Your task to perform on an android device: Search for seafood restaurants on Google Maps Image 0: 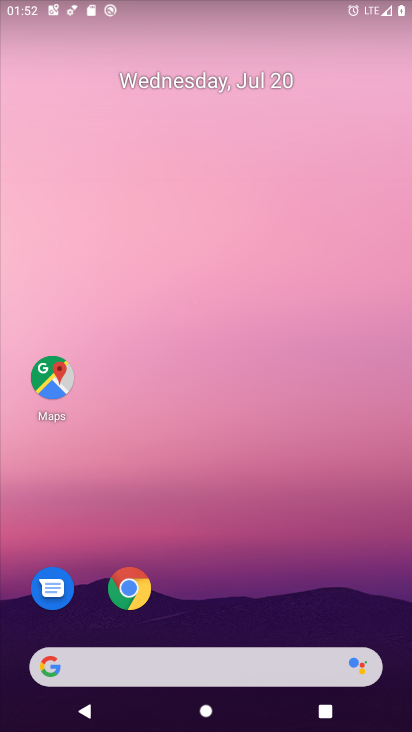
Step 0: drag from (286, 605) to (307, 135)
Your task to perform on an android device: Search for seafood restaurants on Google Maps Image 1: 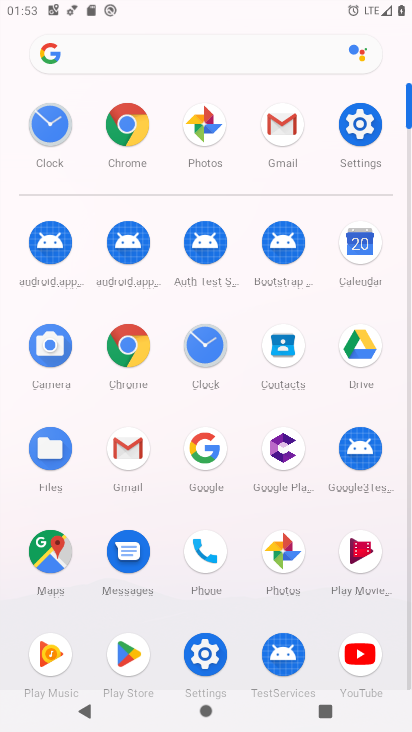
Step 1: click (50, 543)
Your task to perform on an android device: Search for seafood restaurants on Google Maps Image 2: 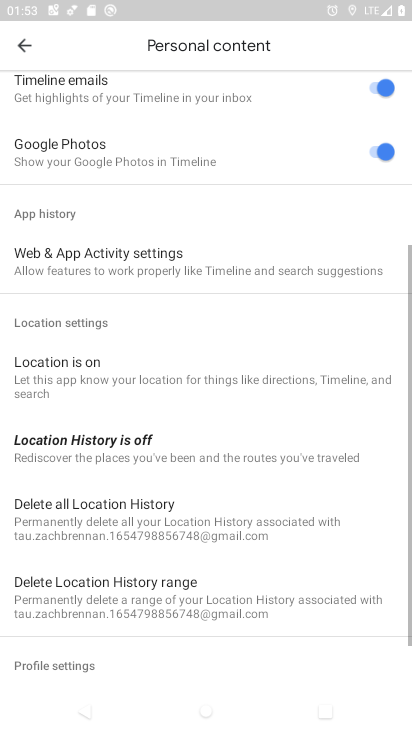
Step 2: click (33, 51)
Your task to perform on an android device: Search for seafood restaurants on Google Maps Image 3: 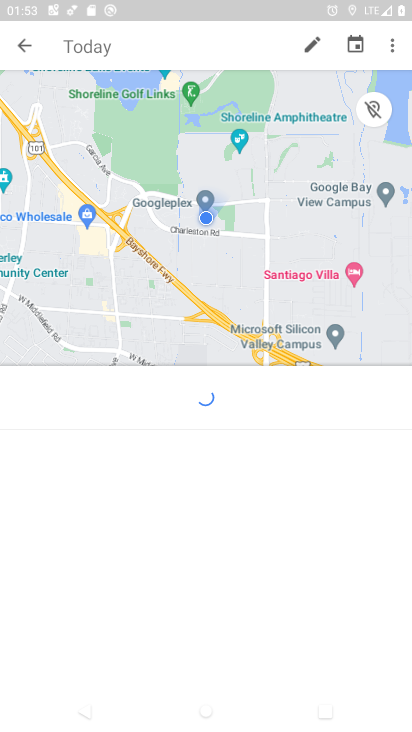
Step 3: click (33, 46)
Your task to perform on an android device: Search for seafood restaurants on Google Maps Image 4: 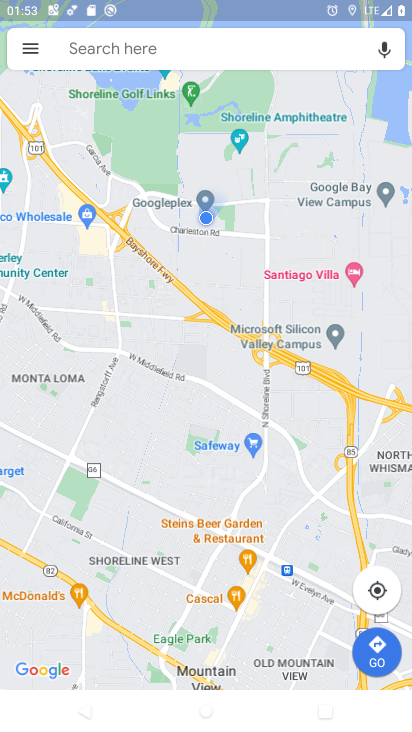
Step 4: click (133, 44)
Your task to perform on an android device: Search for seafood restaurants on Google Maps Image 5: 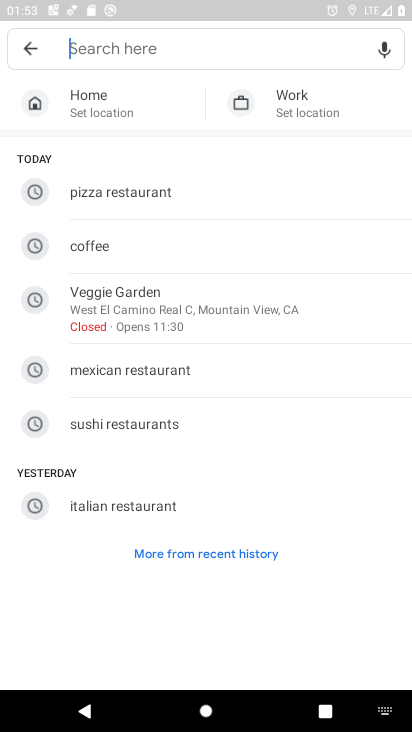
Step 5: click (170, 39)
Your task to perform on an android device: Search for seafood restaurants on Google Maps Image 6: 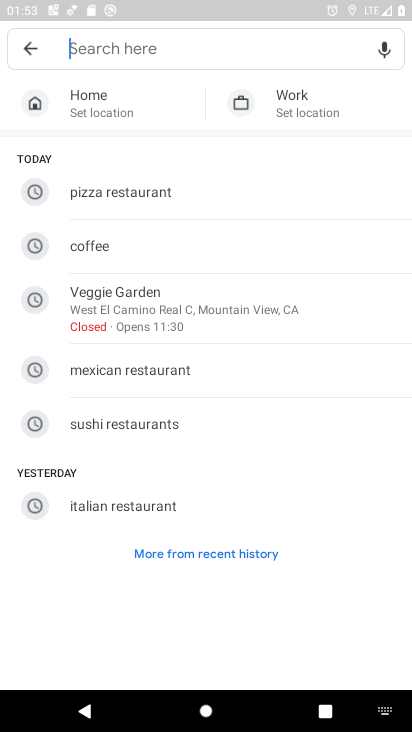
Step 6: type " seafood restaurants  "
Your task to perform on an android device: Search for seafood restaurants on Google Maps Image 7: 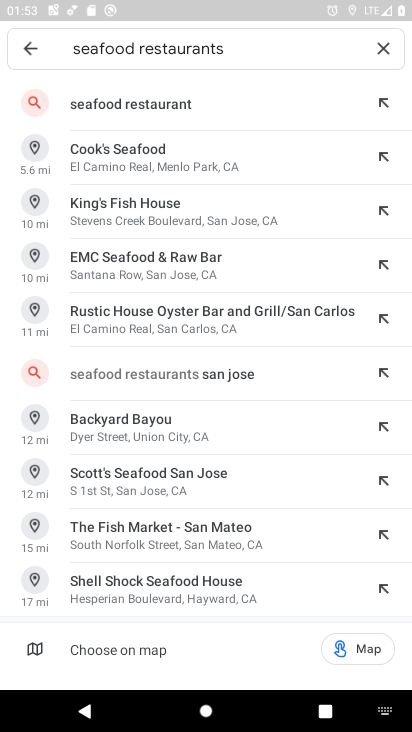
Step 7: click (125, 83)
Your task to perform on an android device: Search for seafood restaurants on Google Maps Image 8: 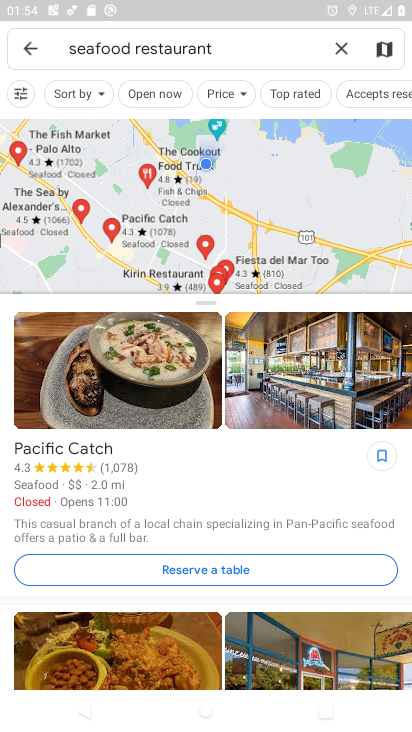
Step 8: task complete